Your task to perform on an android device: search for starred emails in the gmail app Image 0: 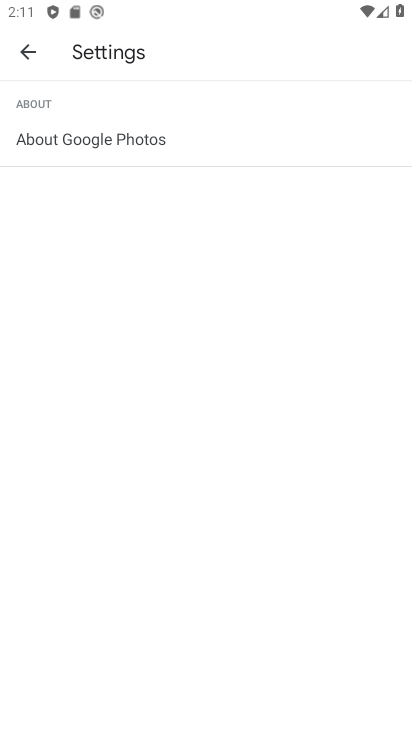
Step 0: press home button
Your task to perform on an android device: search for starred emails in the gmail app Image 1: 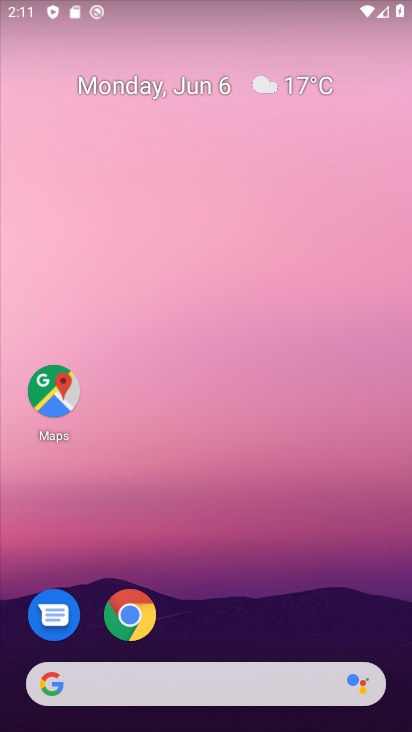
Step 1: drag from (212, 608) to (298, 28)
Your task to perform on an android device: search for starred emails in the gmail app Image 2: 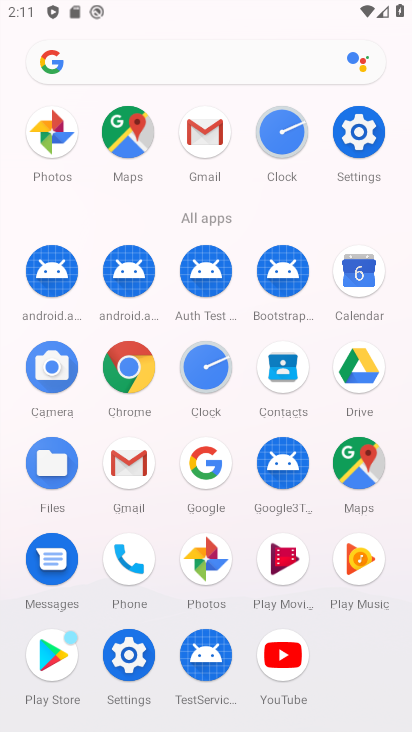
Step 2: click (117, 462)
Your task to perform on an android device: search for starred emails in the gmail app Image 3: 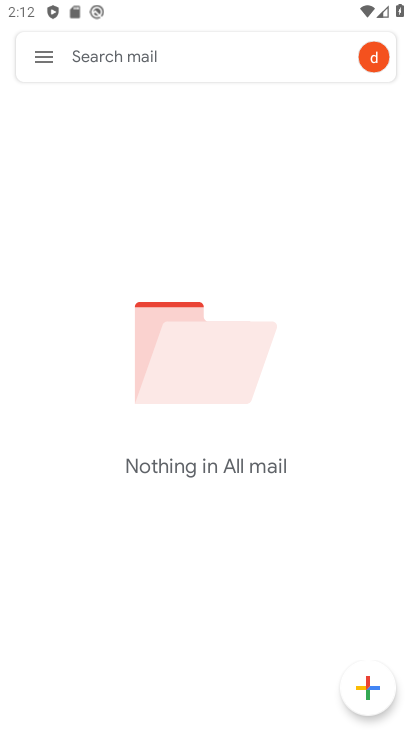
Step 3: click (55, 51)
Your task to perform on an android device: search for starred emails in the gmail app Image 4: 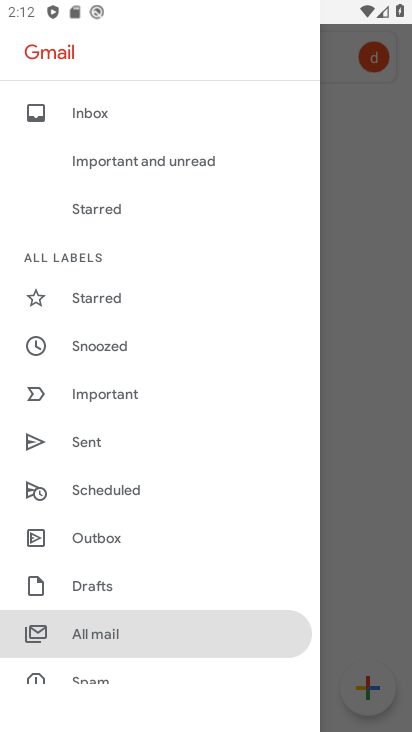
Step 4: click (102, 306)
Your task to perform on an android device: search for starred emails in the gmail app Image 5: 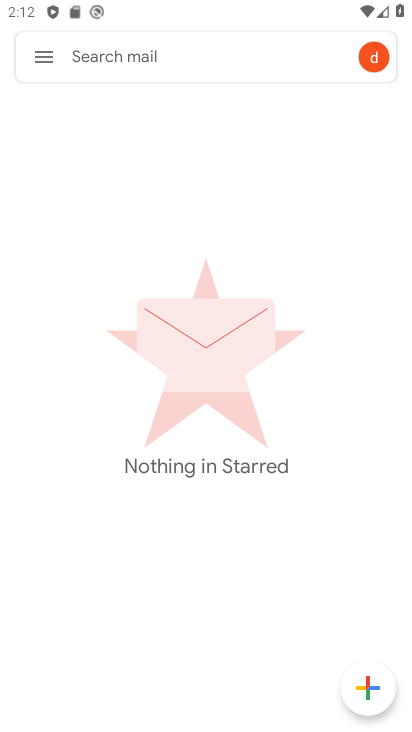
Step 5: task complete